Your task to perform on an android device: Go to Reddit.com Image 0: 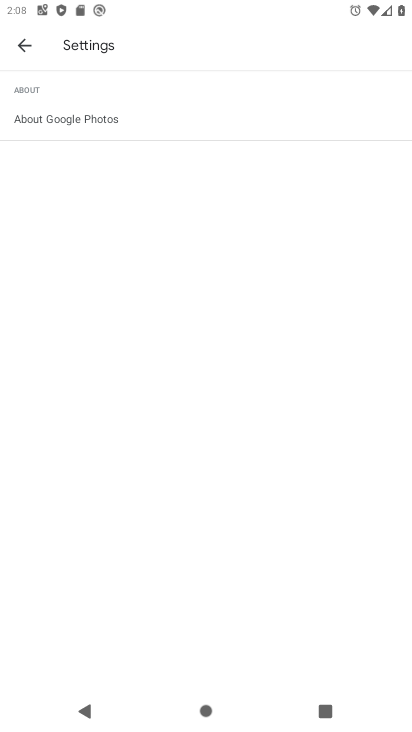
Step 0: press home button
Your task to perform on an android device: Go to Reddit.com Image 1: 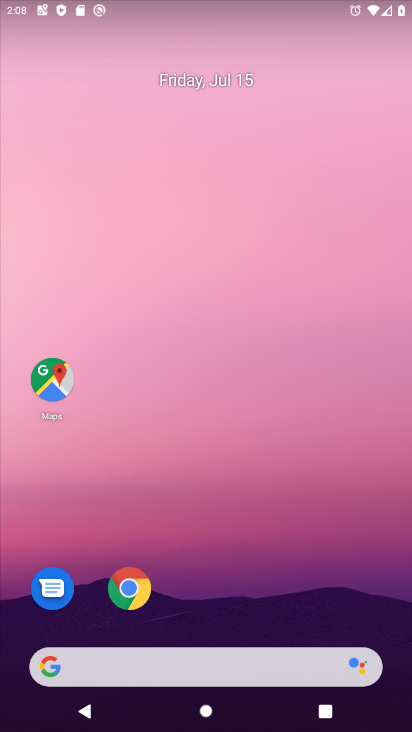
Step 1: click (127, 586)
Your task to perform on an android device: Go to Reddit.com Image 2: 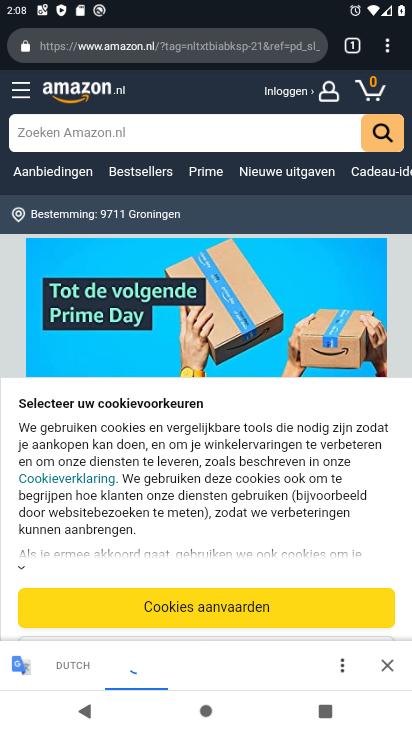
Step 2: click (258, 43)
Your task to perform on an android device: Go to Reddit.com Image 3: 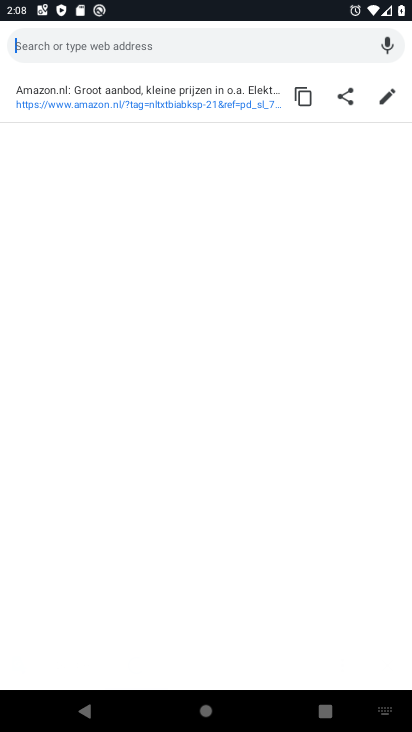
Step 3: type "Reddit.com"
Your task to perform on an android device: Go to Reddit.com Image 4: 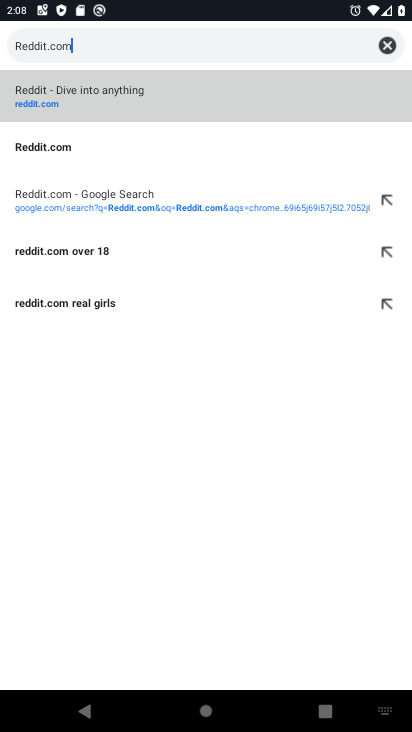
Step 4: click (52, 142)
Your task to perform on an android device: Go to Reddit.com Image 5: 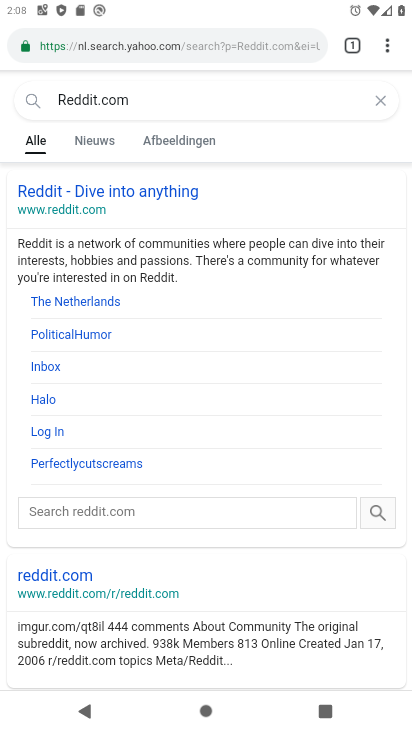
Step 5: click (81, 590)
Your task to perform on an android device: Go to Reddit.com Image 6: 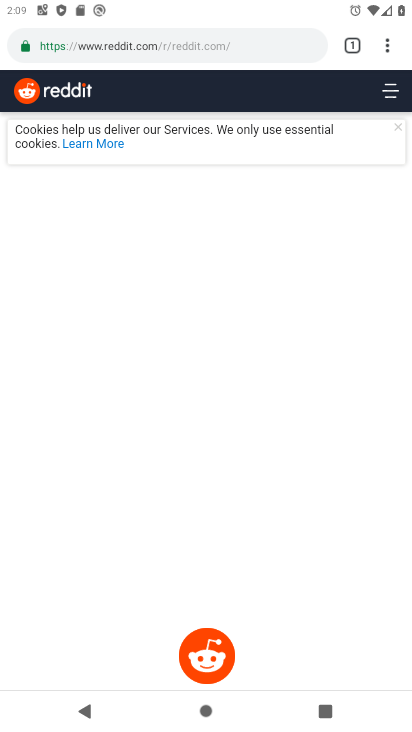
Step 6: task complete